Your task to perform on an android device: Search for the best selling video games at Target Image 0: 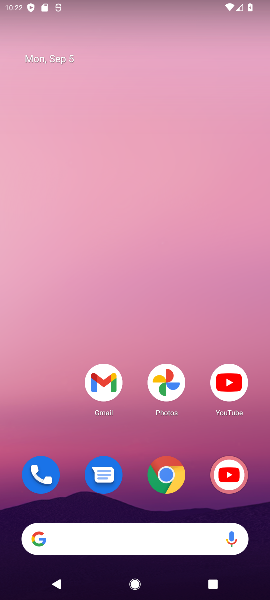
Step 0: click (159, 465)
Your task to perform on an android device: Search for the best selling video games at Target Image 1: 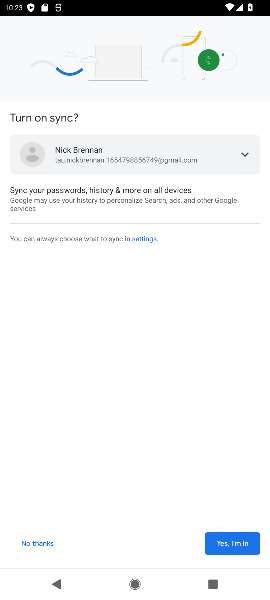
Step 1: task complete